Your task to perform on an android device: change keyboard looks Image 0: 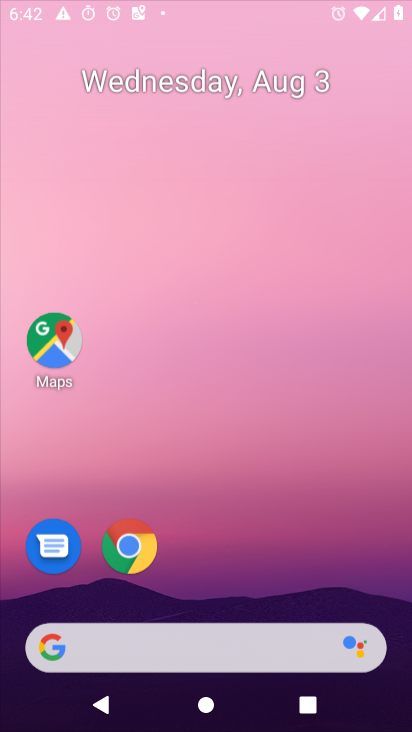
Step 0: press home button
Your task to perform on an android device: change keyboard looks Image 1: 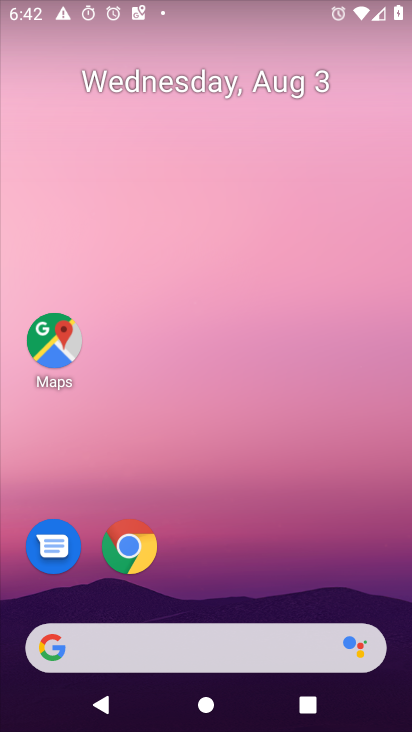
Step 1: drag from (224, 560) to (203, 73)
Your task to perform on an android device: change keyboard looks Image 2: 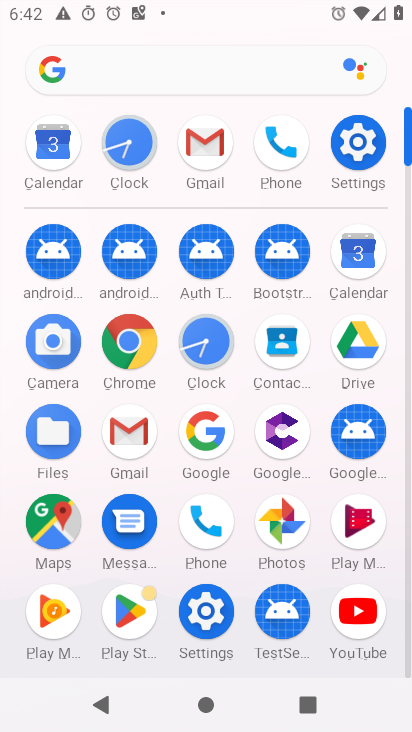
Step 2: click (353, 157)
Your task to perform on an android device: change keyboard looks Image 3: 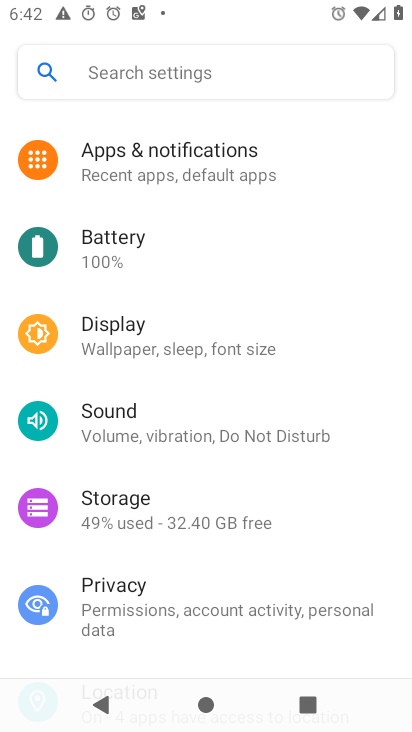
Step 3: drag from (345, 574) to (276, 0)
Your task to perform on an android device: change keyboard looks Image 4: 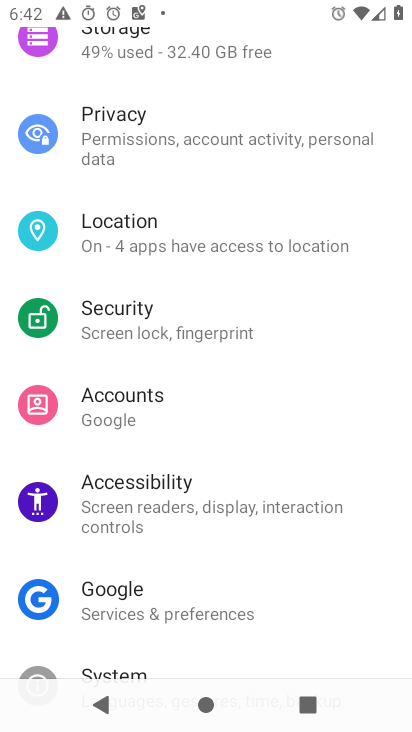
Step 4: drag from (320, 571) to (271, 8)
Your task to perform on an android device: change keyboard looks Image 5: 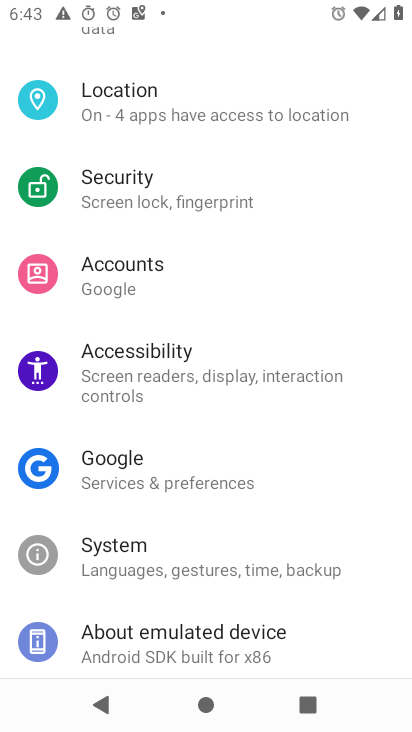
Step 5: click (112, 563)
Your task to perform on an android device: change keyboard looks Image 6: 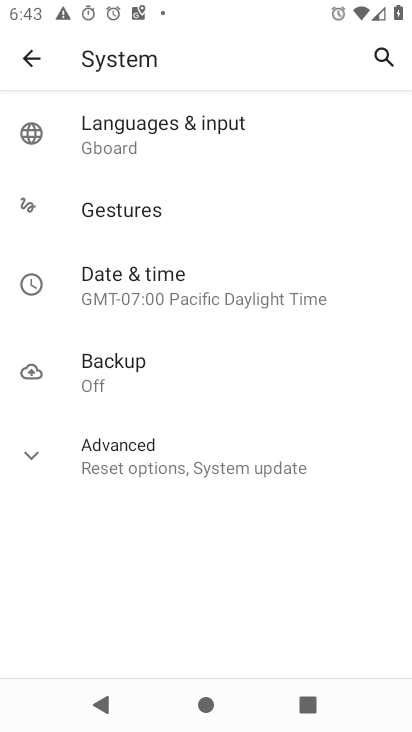
Step 6: click (122, 138)
Your task to perform on an android device: change keyboard looks Image 7: 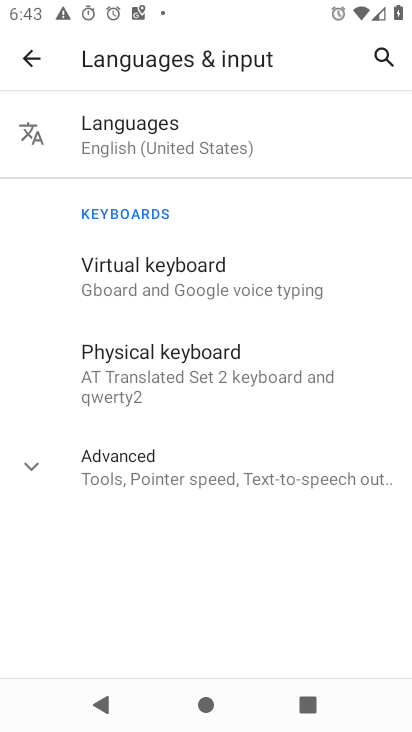
Step 7: click (134, 272)
Your task to perform on an android device: change keyboard looks Image 8: 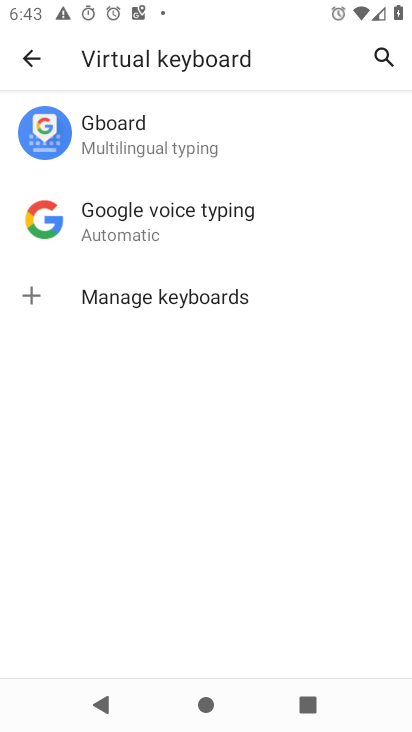
Step 8: click (95, 140)
Your task to perform on an android device: change keyboard looks Image 9: 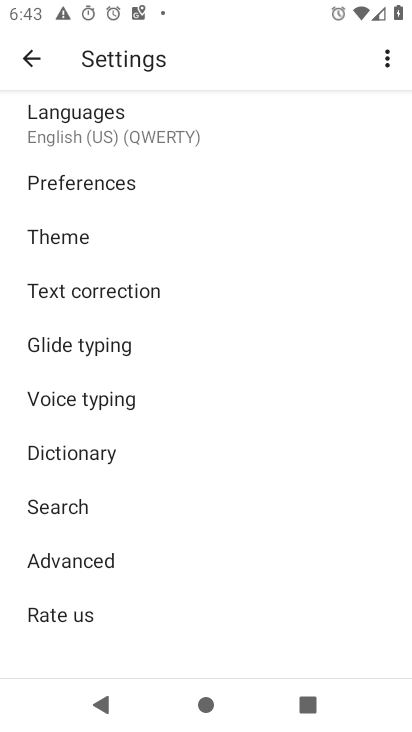
Step 9: click (54, 231)
Your task to perform on an android device: change keyboard looks Image 10: 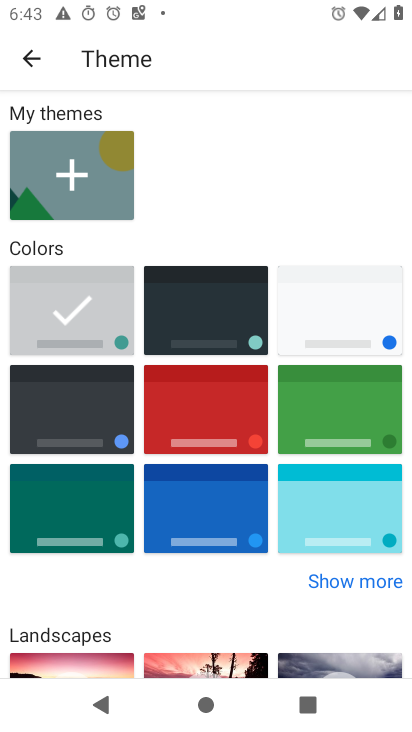
Step 10: click (223, 317)
Your task to perform on an android device: change keyboard looks Image 11: 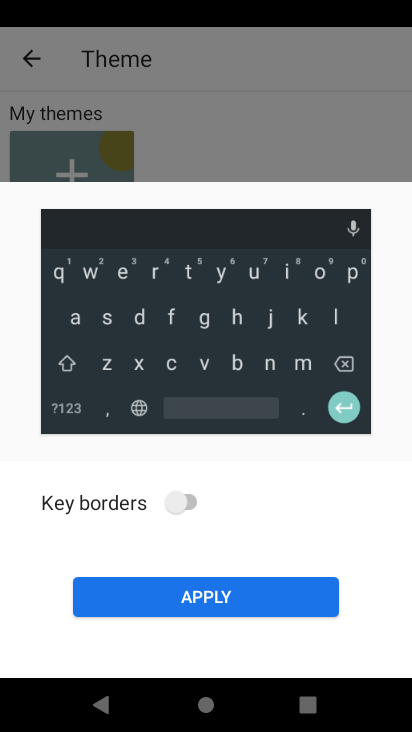
Step 11: click (136, 599)
Your task to perform on an android device: change keyboard looks Image 12: 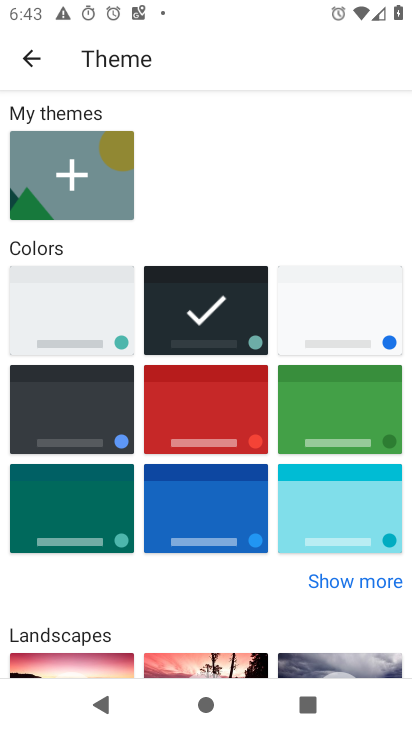
Step 12: task complete